Your task to perform on an android device: turn off airplane mode Image 0: 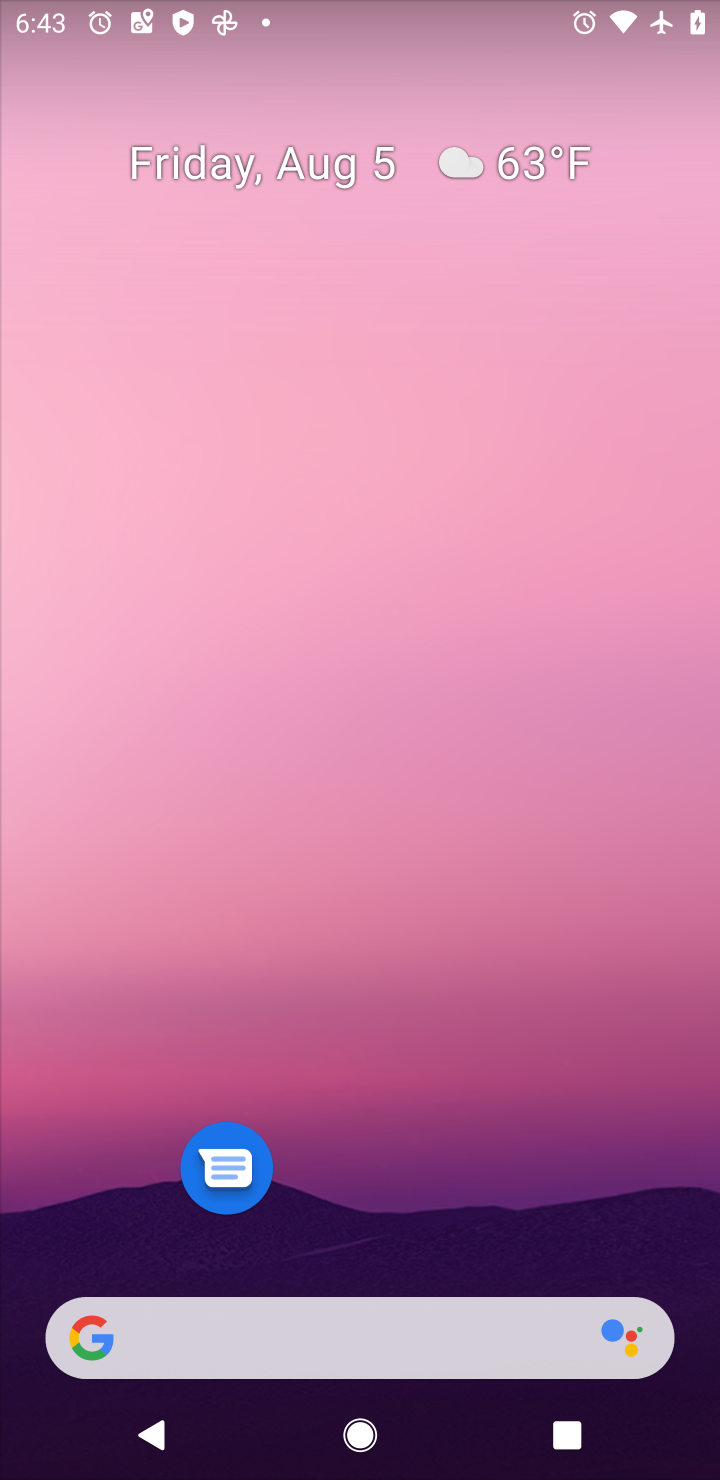
Step 0: drag from (378, 1270) to (455, 0)
Your task to perform on an android device: turn off airplane mode Image 1: 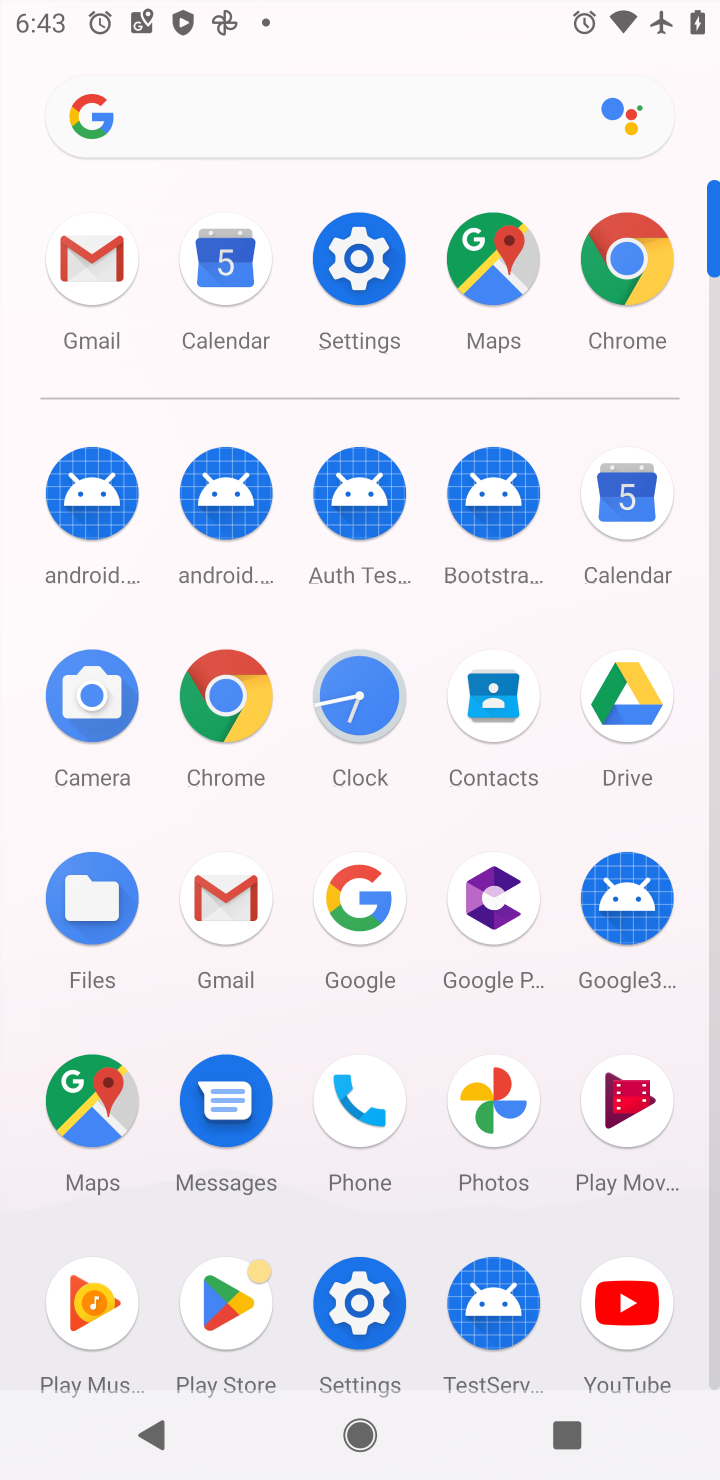
Step 1: click (368, 291)
Your task to perform on an android device: turn off airplane mode Image 2: 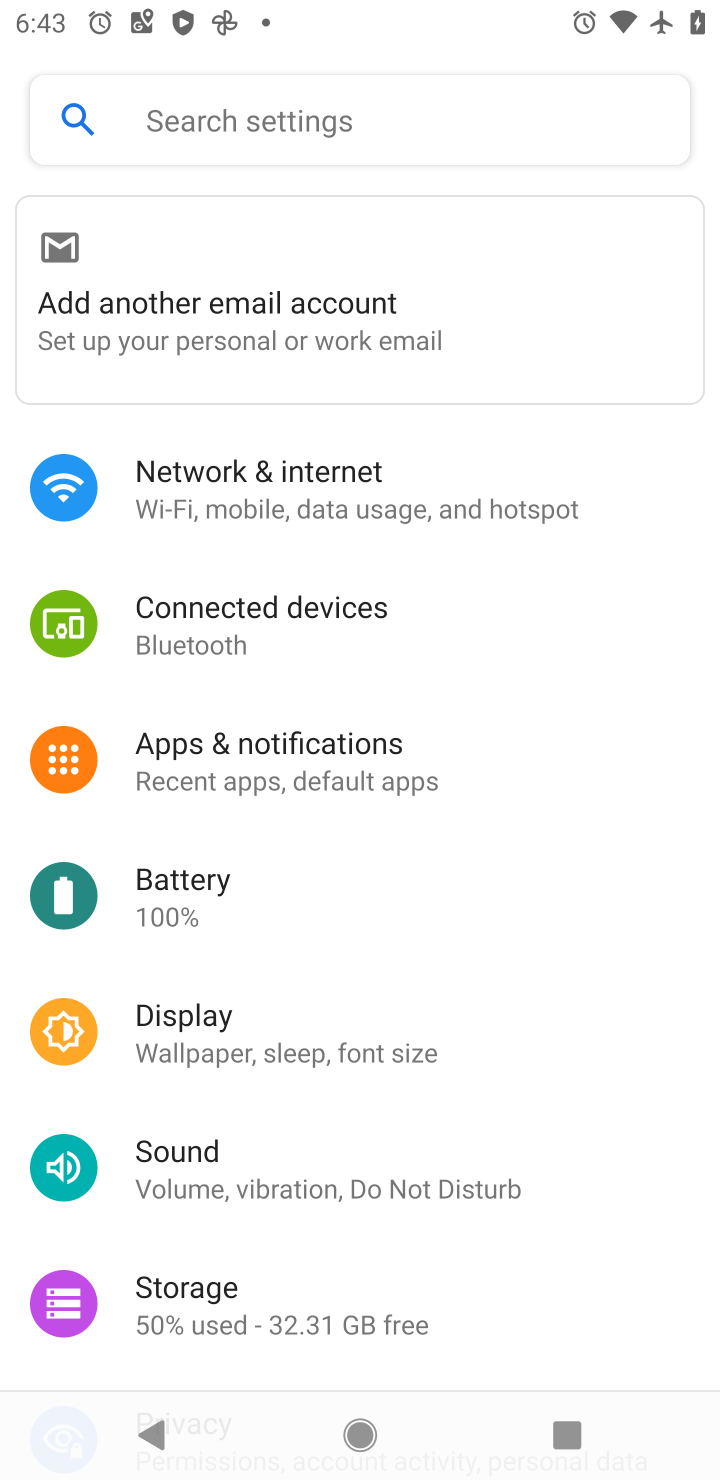
Step 2: click (278, 486)
Your task to perform on an android device: turn off airplane mode Image 3: 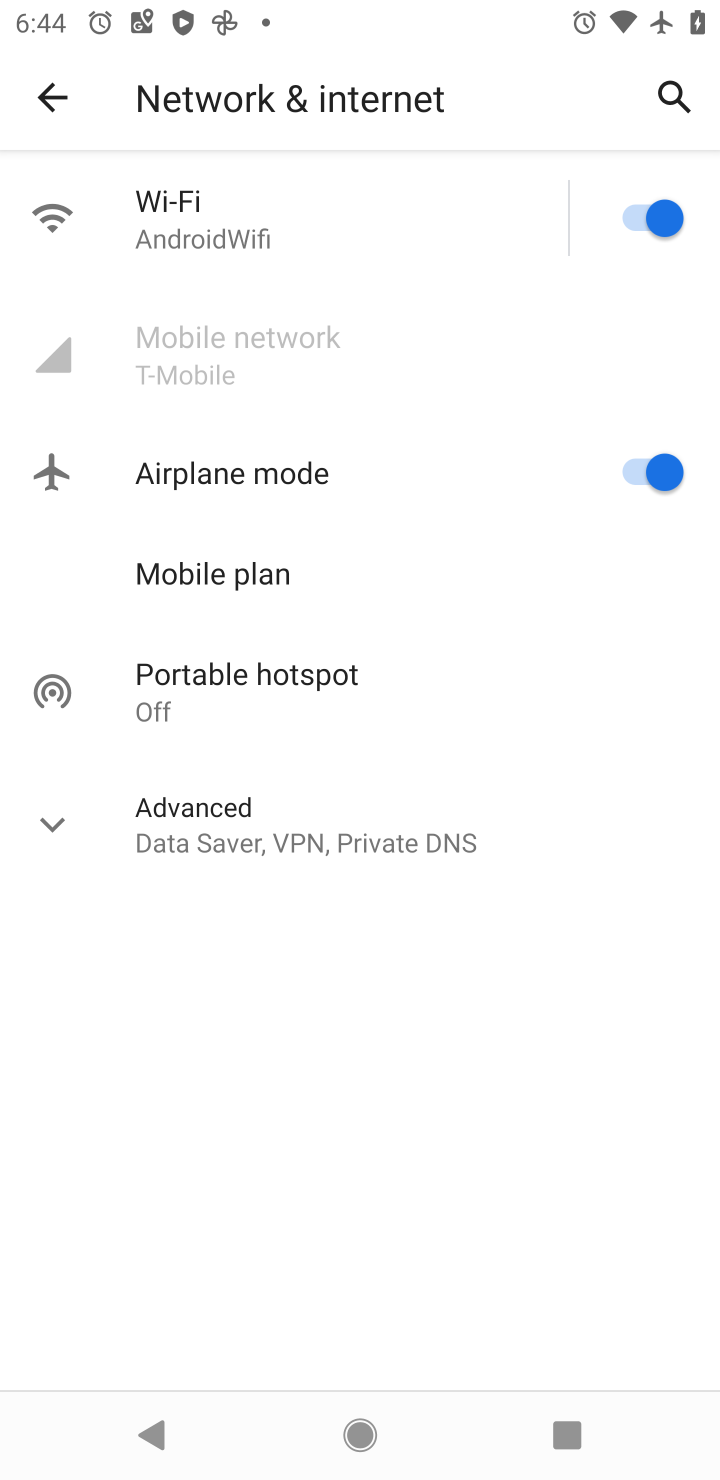
Step 3: click (668, 474)
Your task to perform on an android device: turn off airplane mode Image 4: 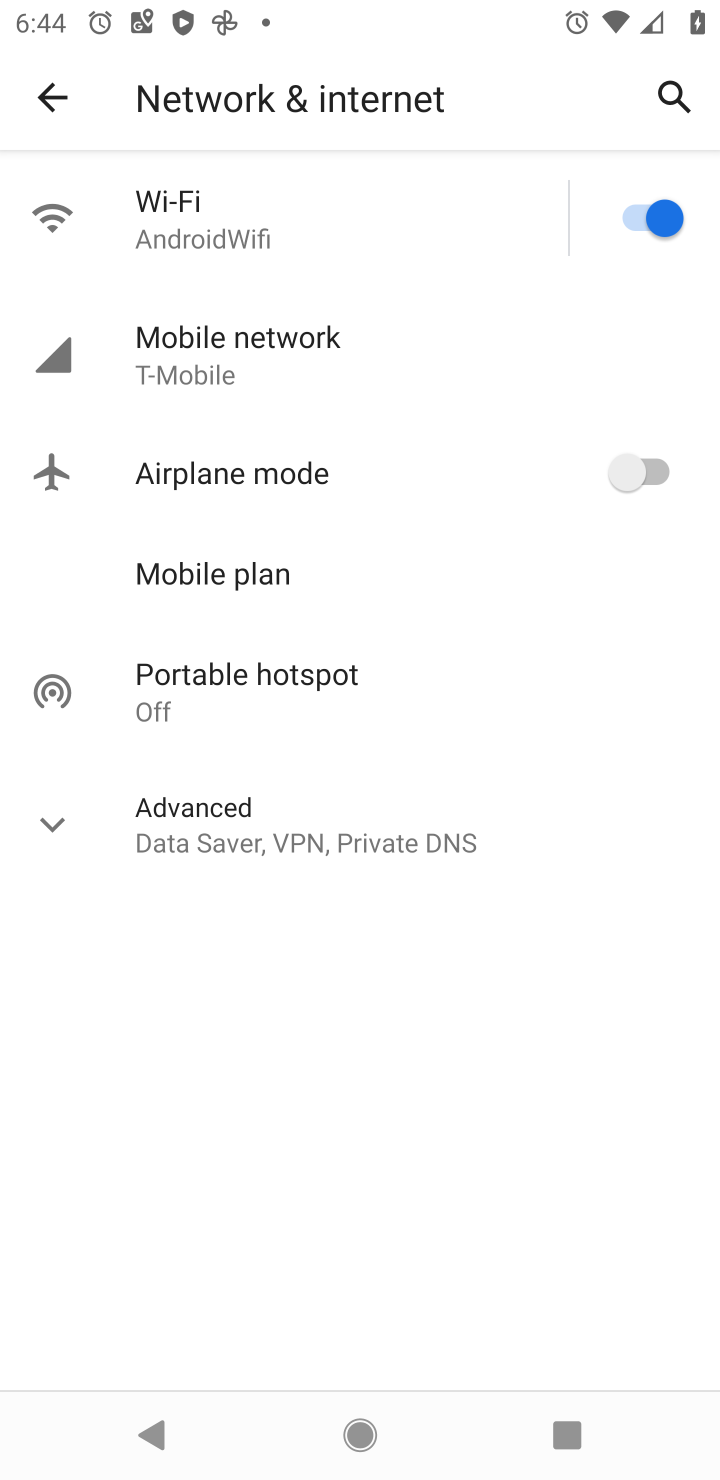
Step 4: task complete